Your task to perform on an android device: Add "logitech g pro" to the cart on ebay.com, then select checkout. Image 0: 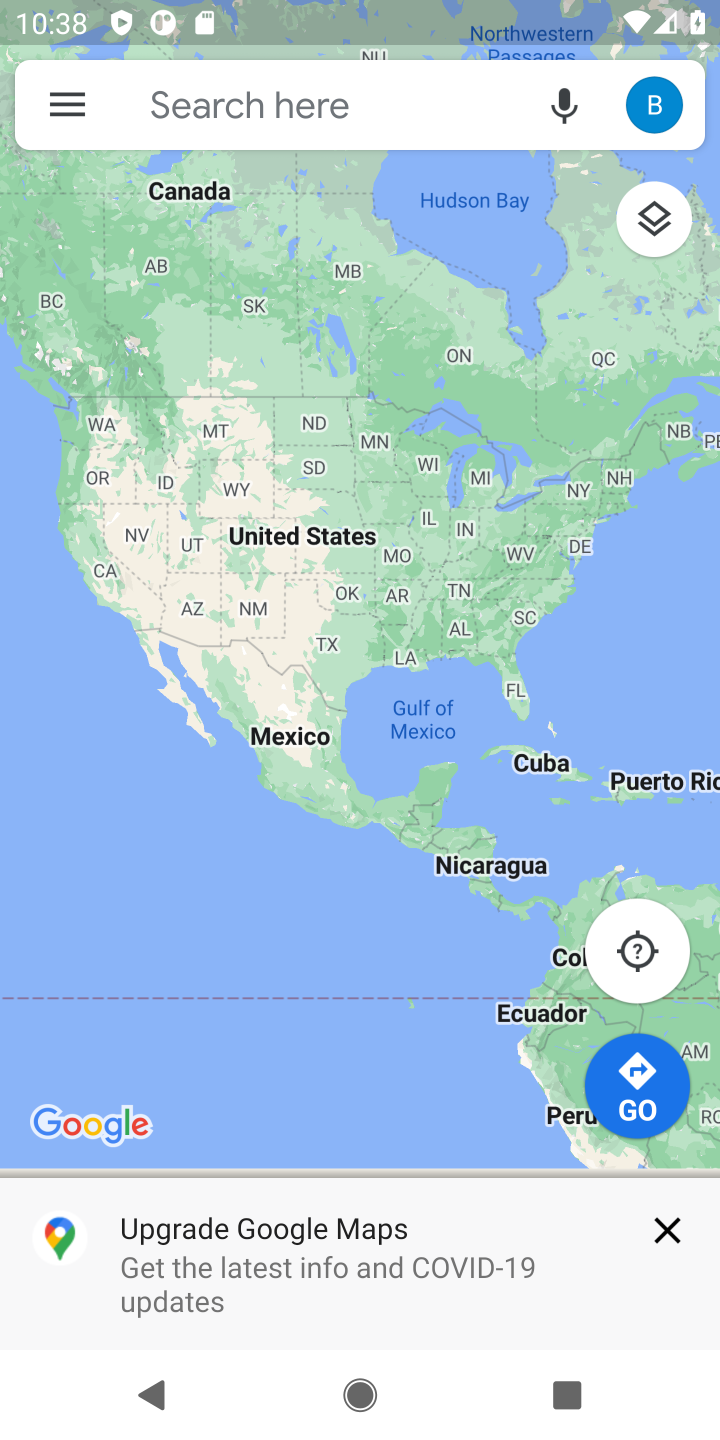
Step 0: press home button
Your task to perform on an android device: Add "logitech g pro" to the cart on ebay.com, then select checkout. Image 1: 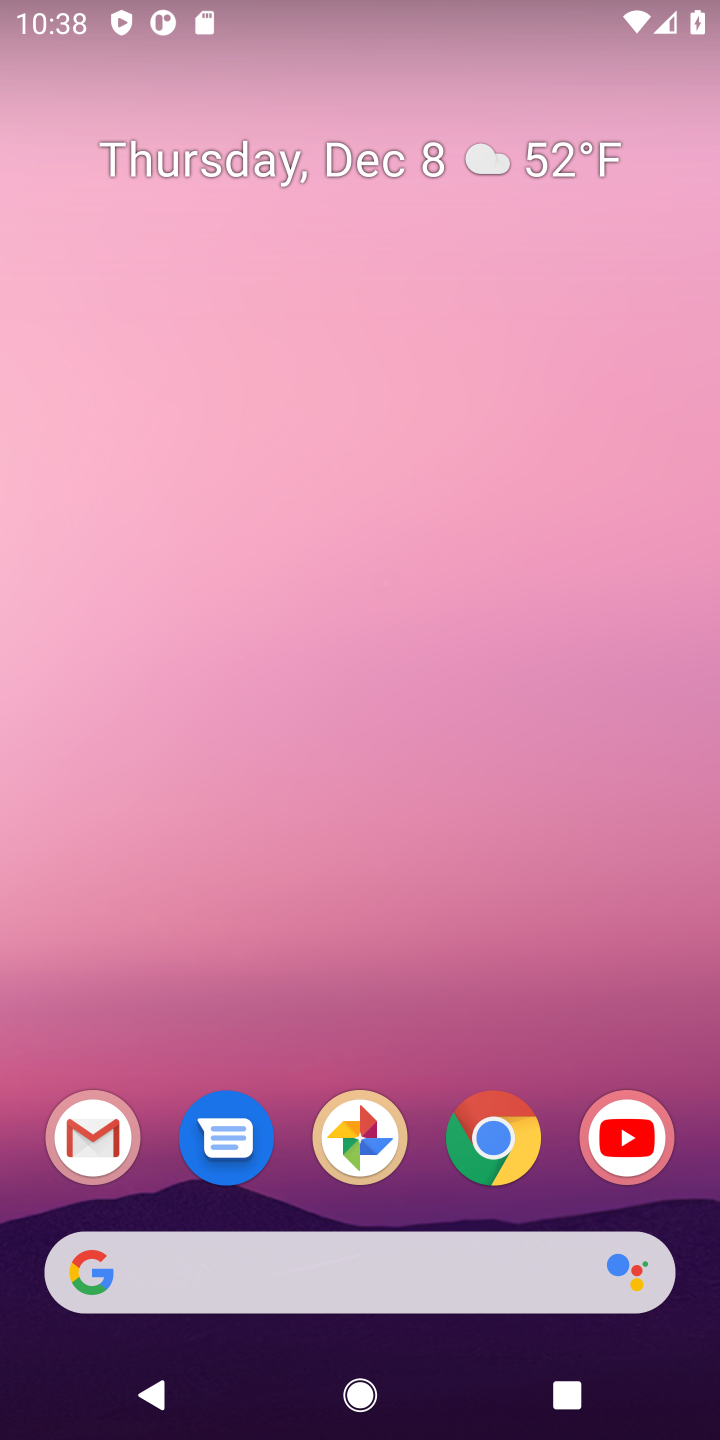
Step 1: click (503, 1136)
Your task to perform on an android device: Add "logitech g pro" to the cart on ebay.com, then select checkout. Image 2: 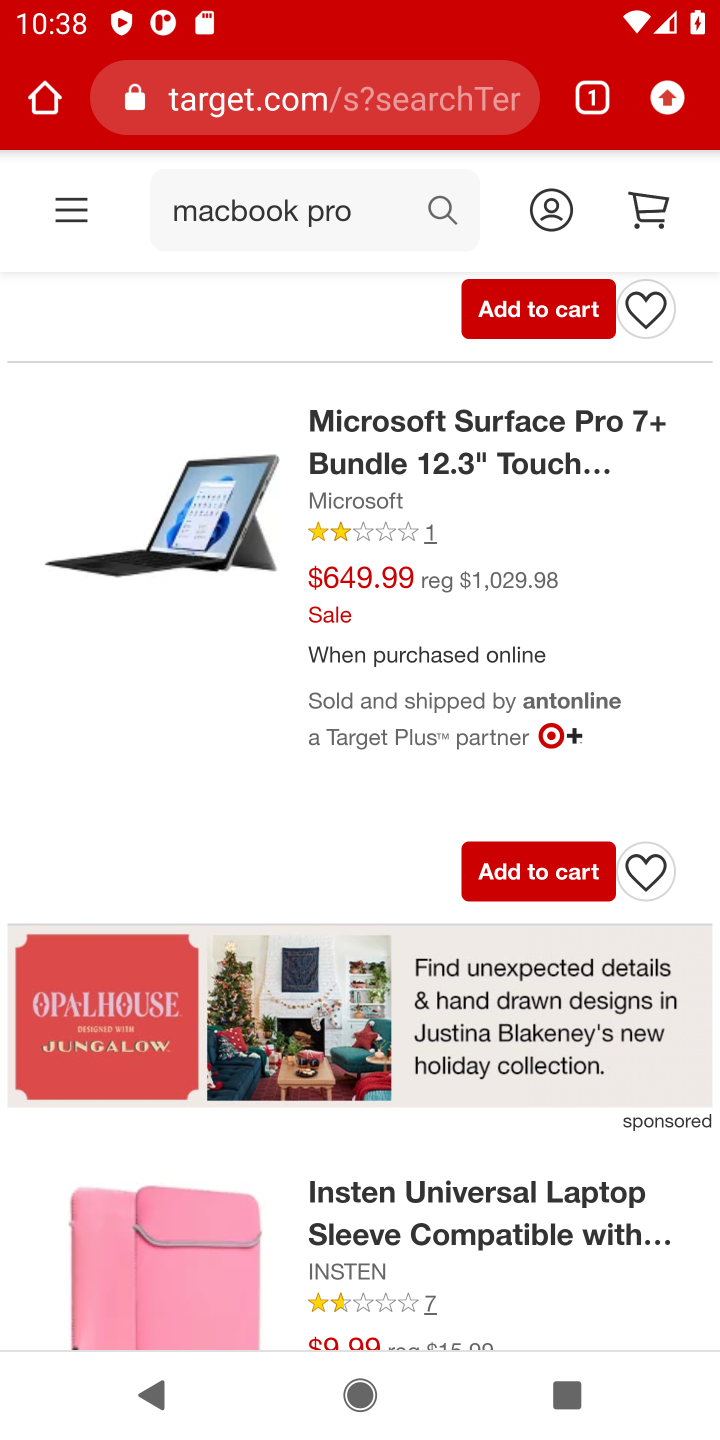
Step 2: click (435, 100)
Your task to perform on an android device: Add "logitech g pro" to the cart on ebay.com, then select checkout. Image 3: 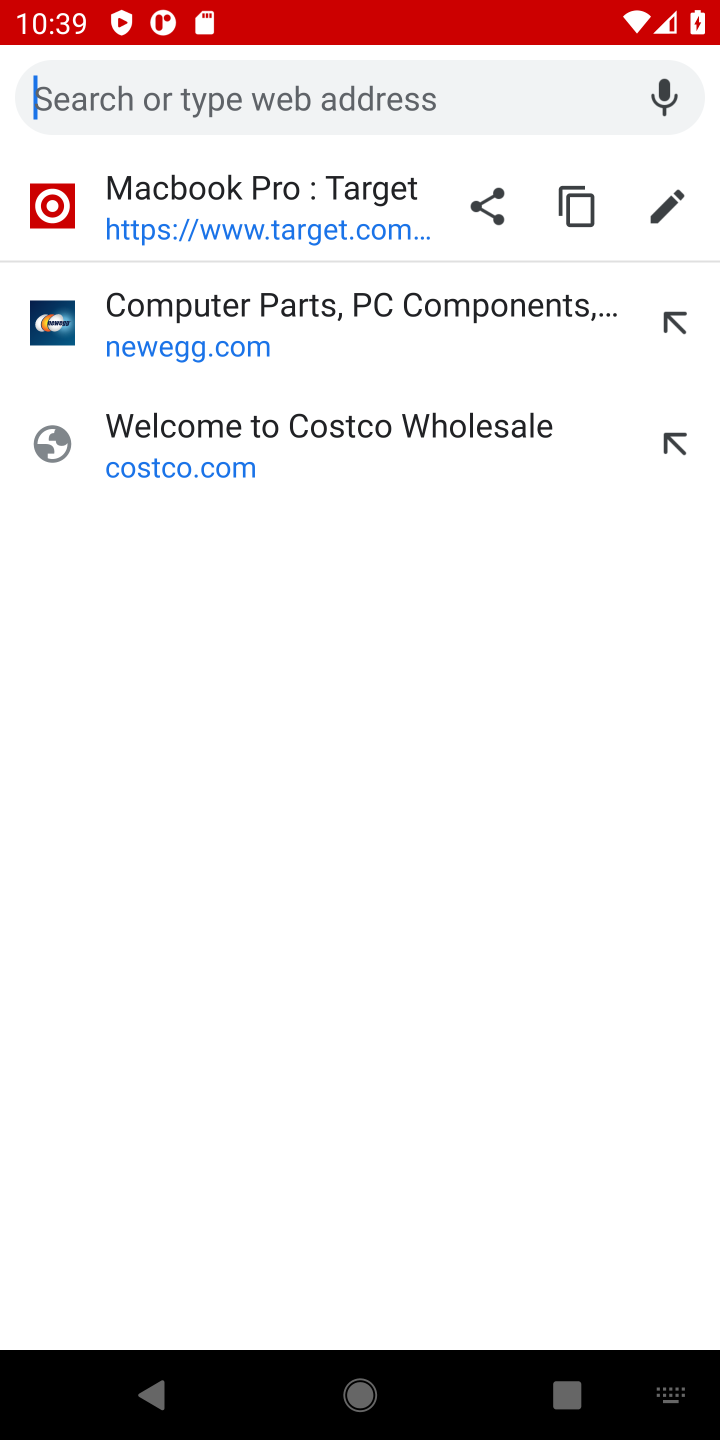
Step 3: click (343, 101)
Your task to perform on an android device: Add "logitech g pro" to the cart on ebay.com, then select checkout. Image 4: 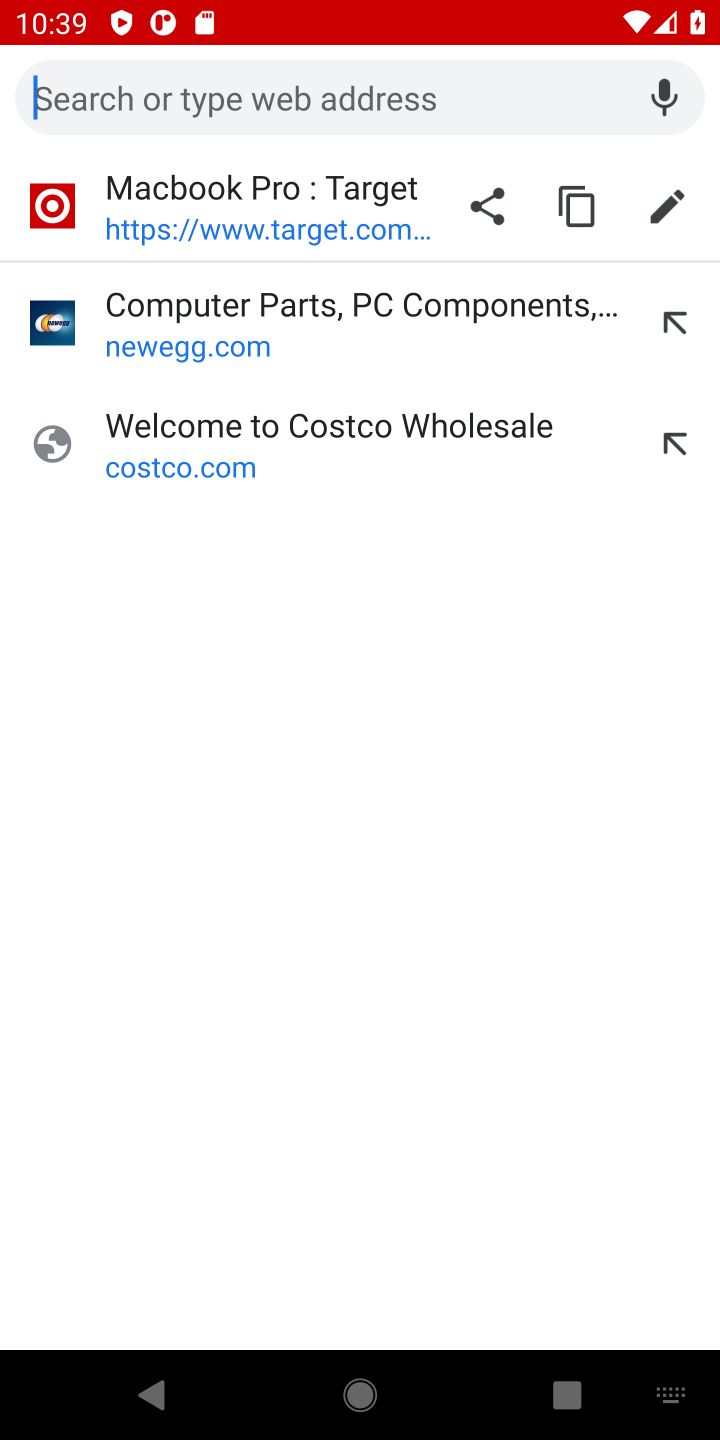
Step 4: type "ebay.com"
Your task to perform on an android device: Add "logitech g pro" to the cart on ebay.com, then select checkout. Image 5: 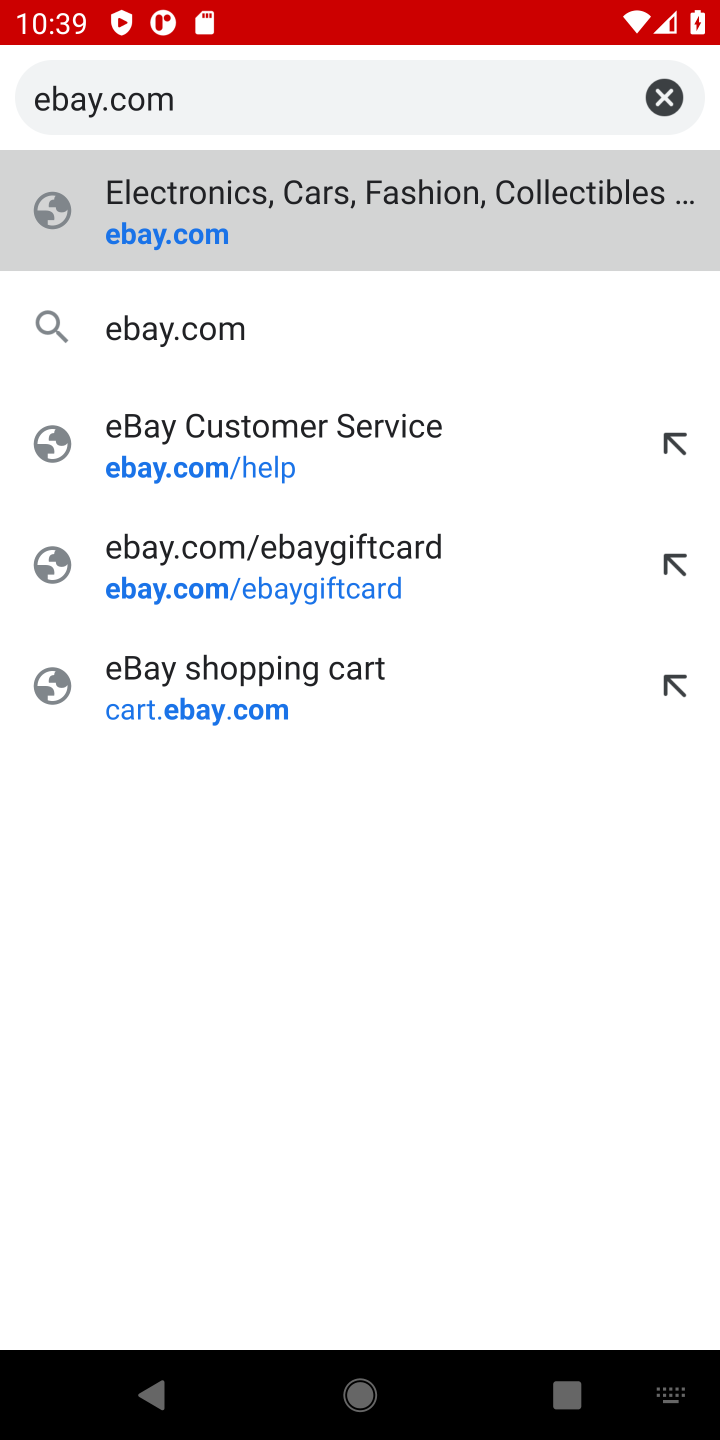
Step 5: click (161, 324)
Your task to perform on an android device: Add "logitech g pro" to the cart on ebay.com, then select checkout. Image 6: 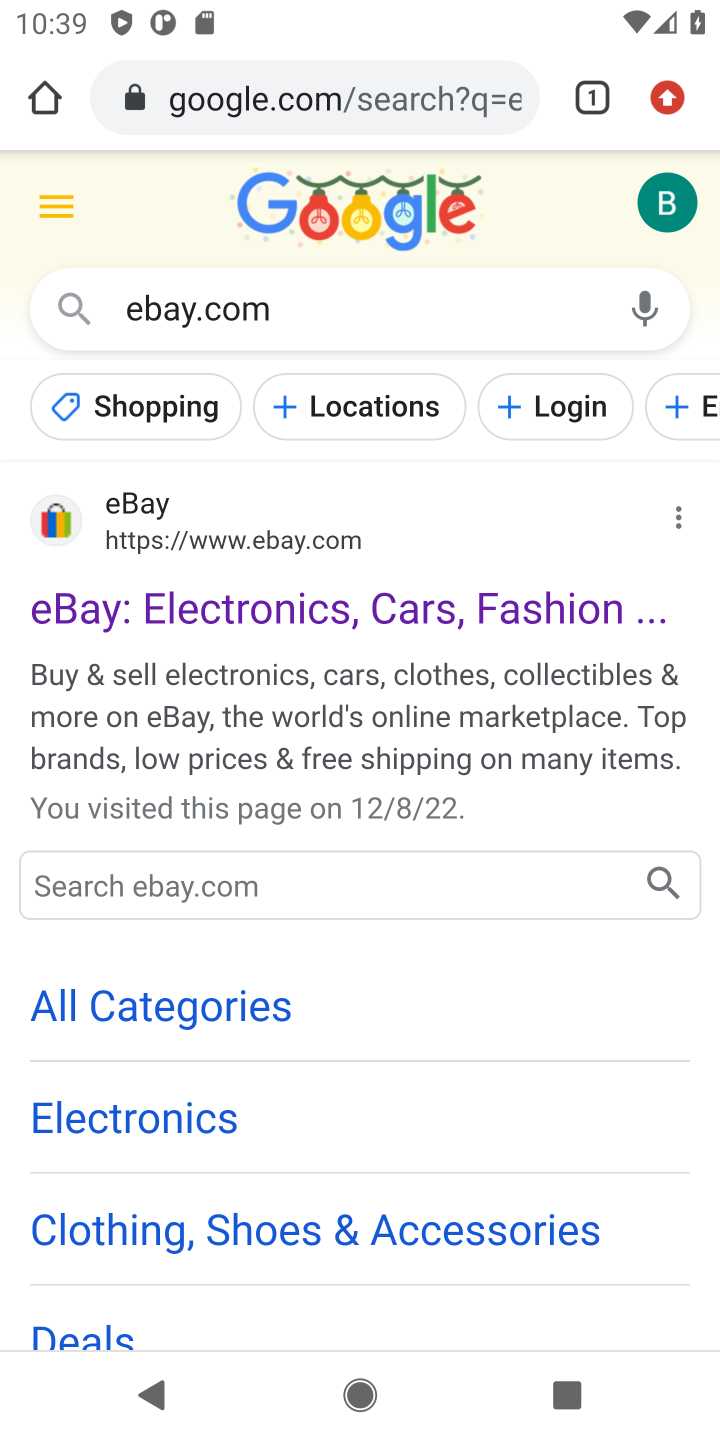
Step 6: click (232, 527)
Your task to perform on an android device: Add "logitech g pro" to the cart on ebay.com, then select checkout. Image 7: 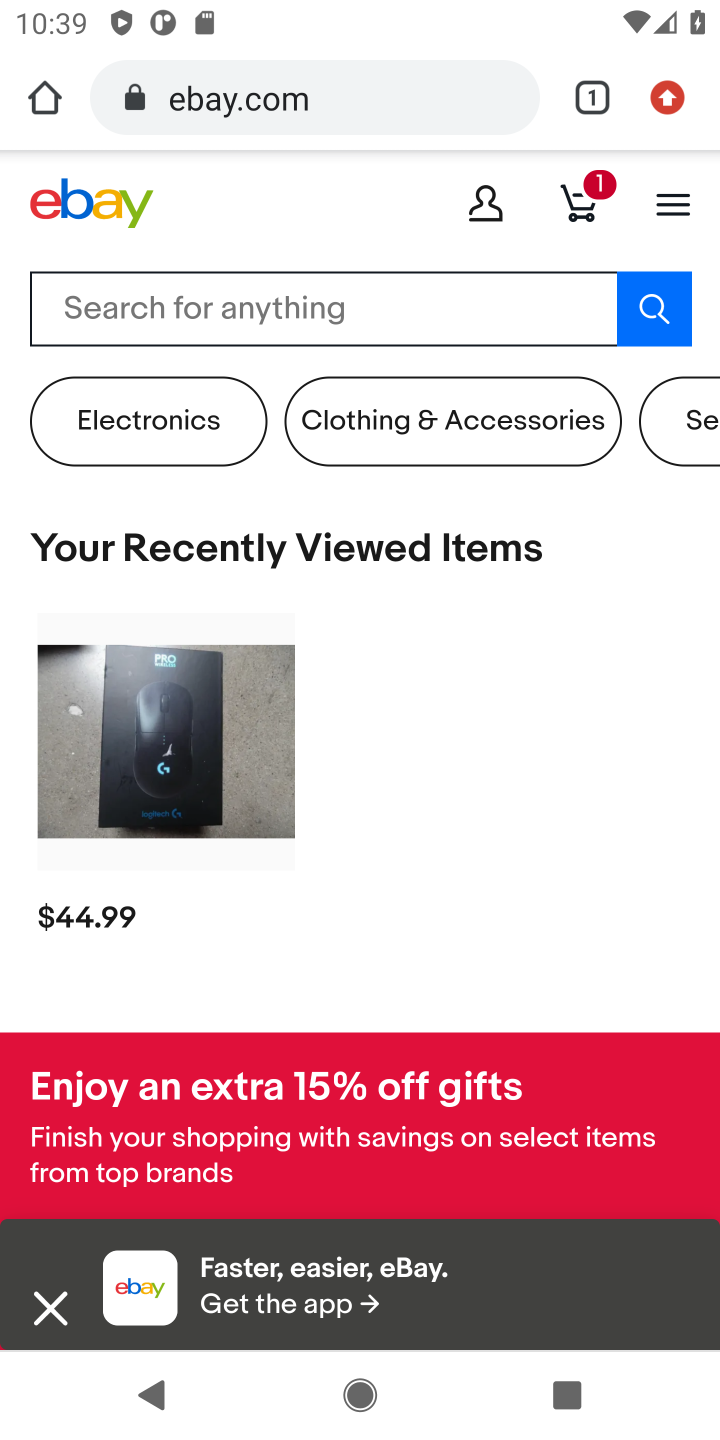
Step 7: click (563, 312)
Your task to perform on an android device: Add "logitech g pro" to the cart on ebay.com, then select checkout. Image 8: 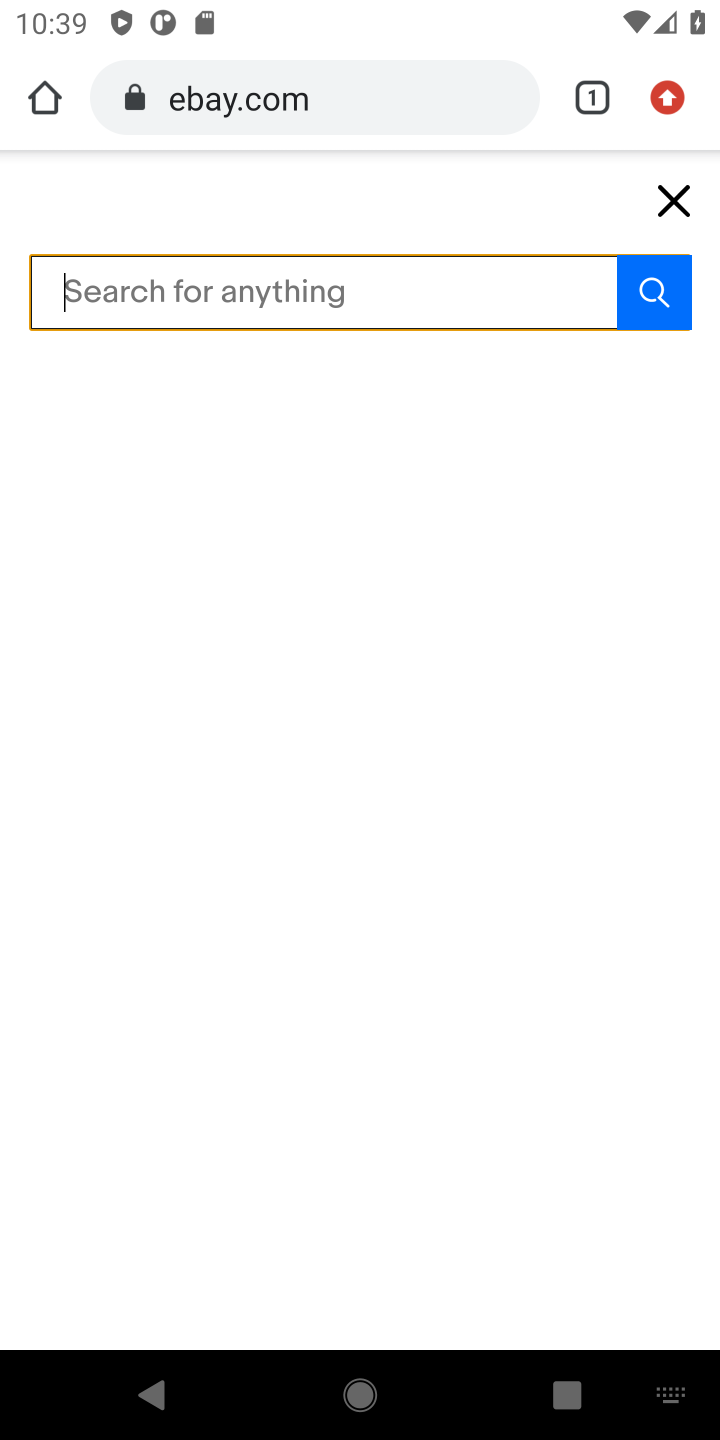
Step 8: type "logitech g pro"
Your task to perform on an android device: Add "logitech g pro" to the cart on ebay.com, then select checkout. Image 9: 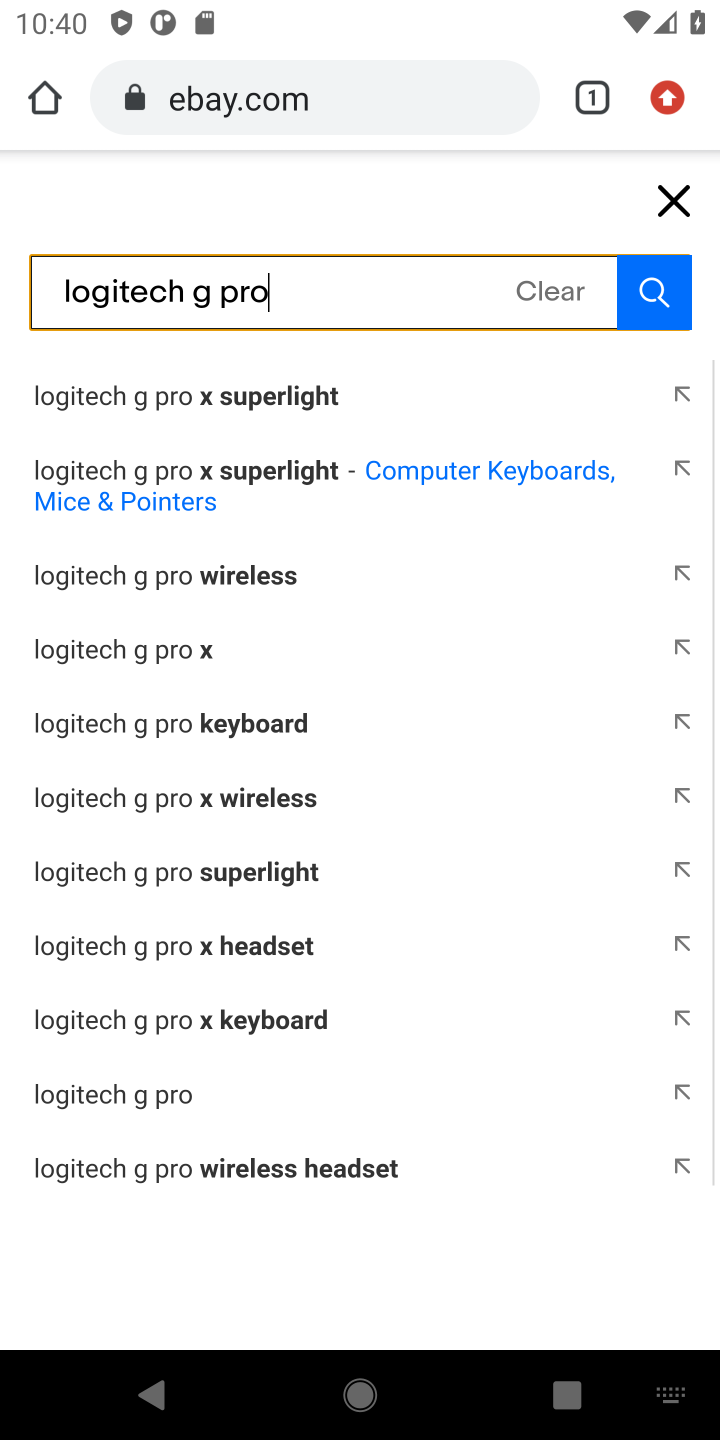
Step 9: press enter
Your task to perform on an android device: Add "logitech g pro" to the cart on ebay.com, then select checkout. Image 10: 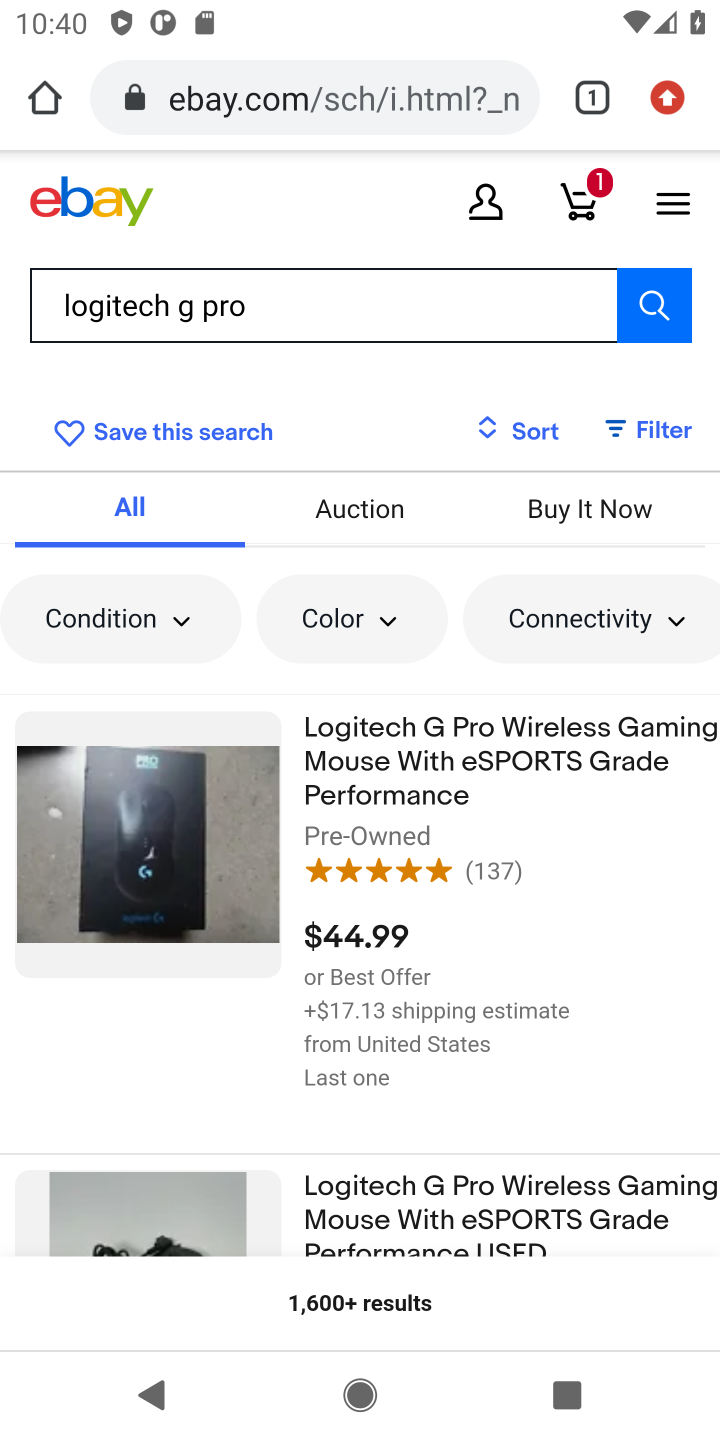
Step 10: click (153, 835)
Your task to perform on an android device: Add "logitech g pro" to the cart on ebay.com, then select checkout. Image 11: 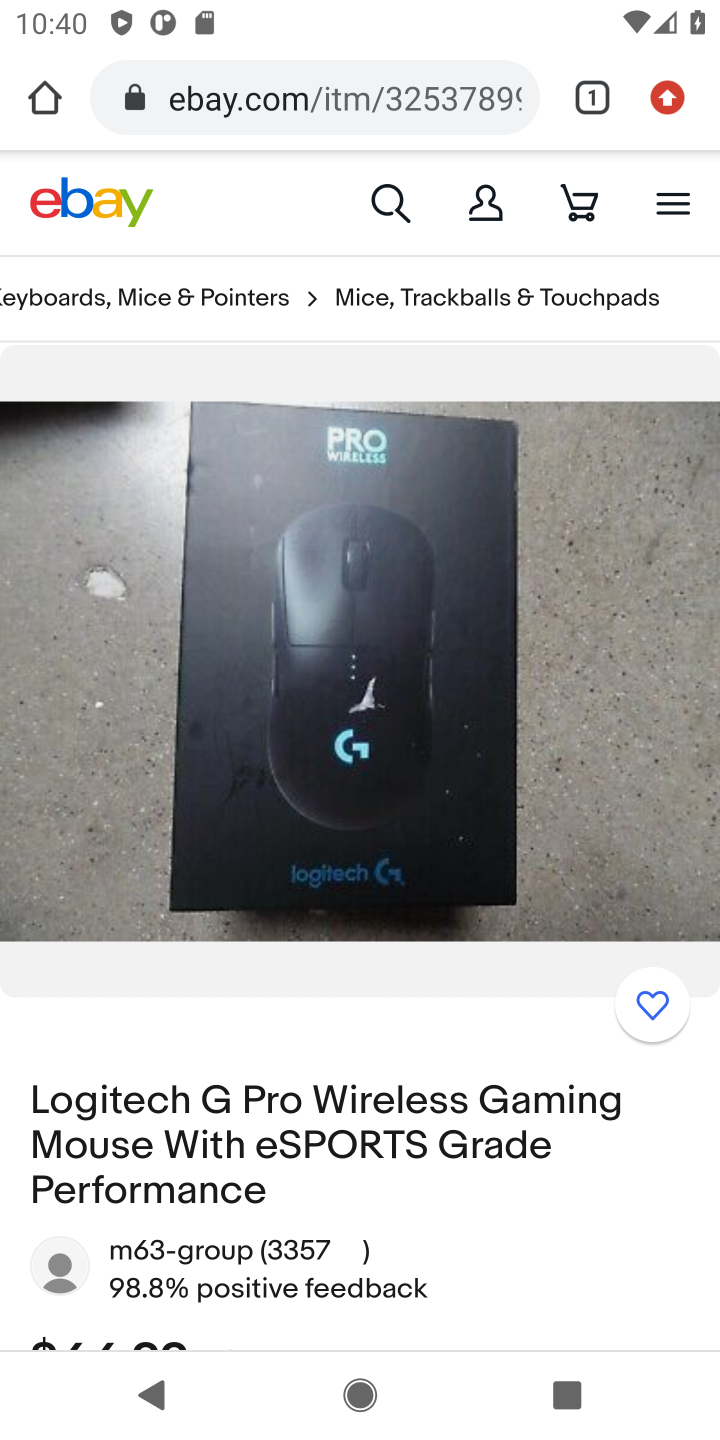
Step 11: drag from (541, 1118) to (554, 332)
Your task to perform on an android device: Add "logitech g pro" to the cart on ebay.com, then select checkout. Image 12: 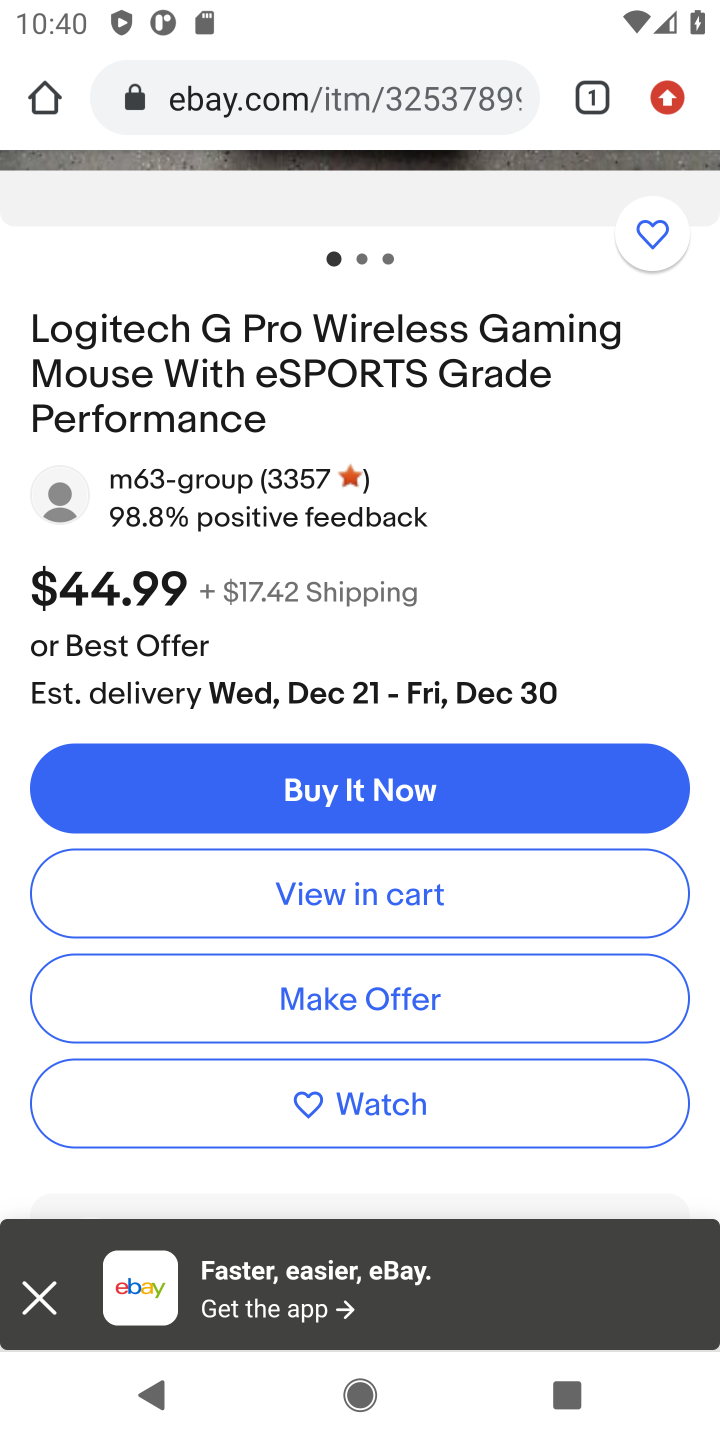
Step 12: click (368, 882)
Your task to perform on an android device: Add "logitech g pro" to the cart on ebay.com, then select checkout. Image 13: 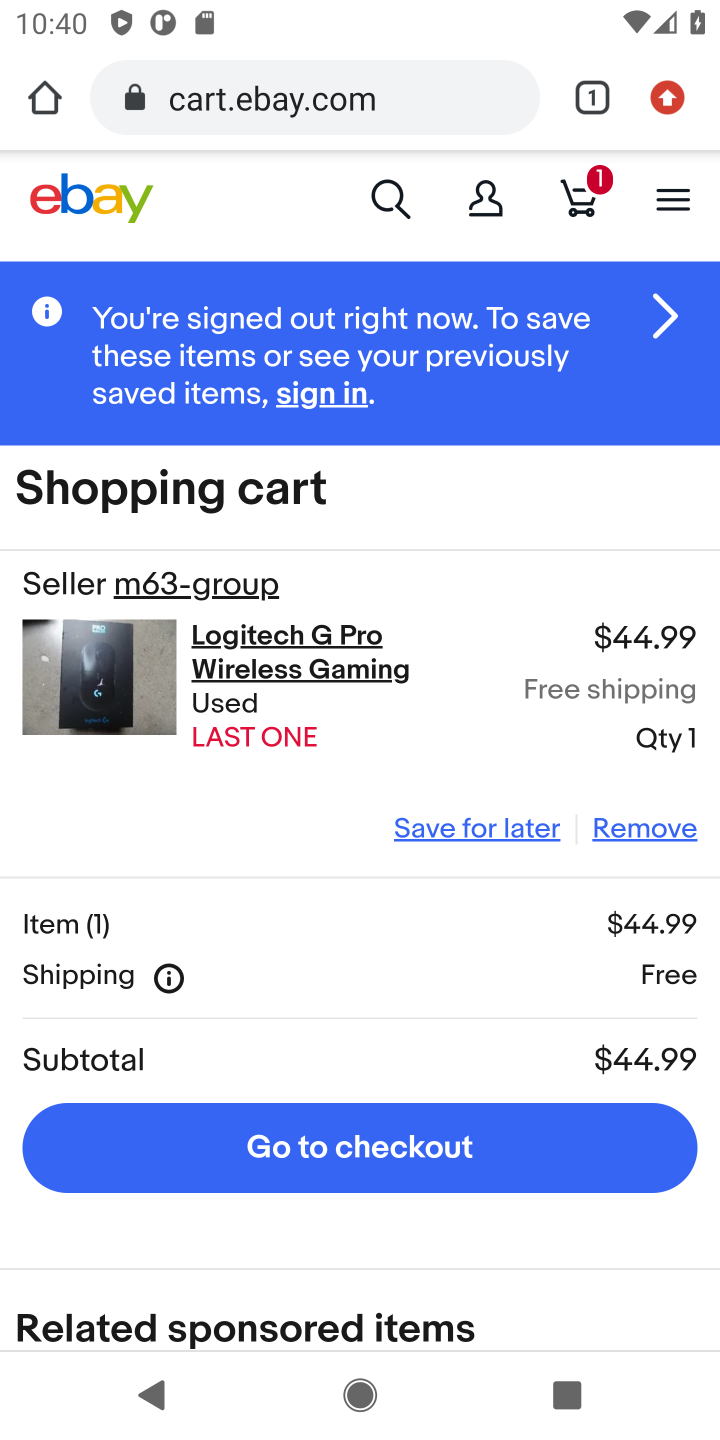
Step 13: click (359, 1138)
Your task to perform on an android device: Add "logitech g pro" to the cart on ebay.com, then select checkout. Image 14: 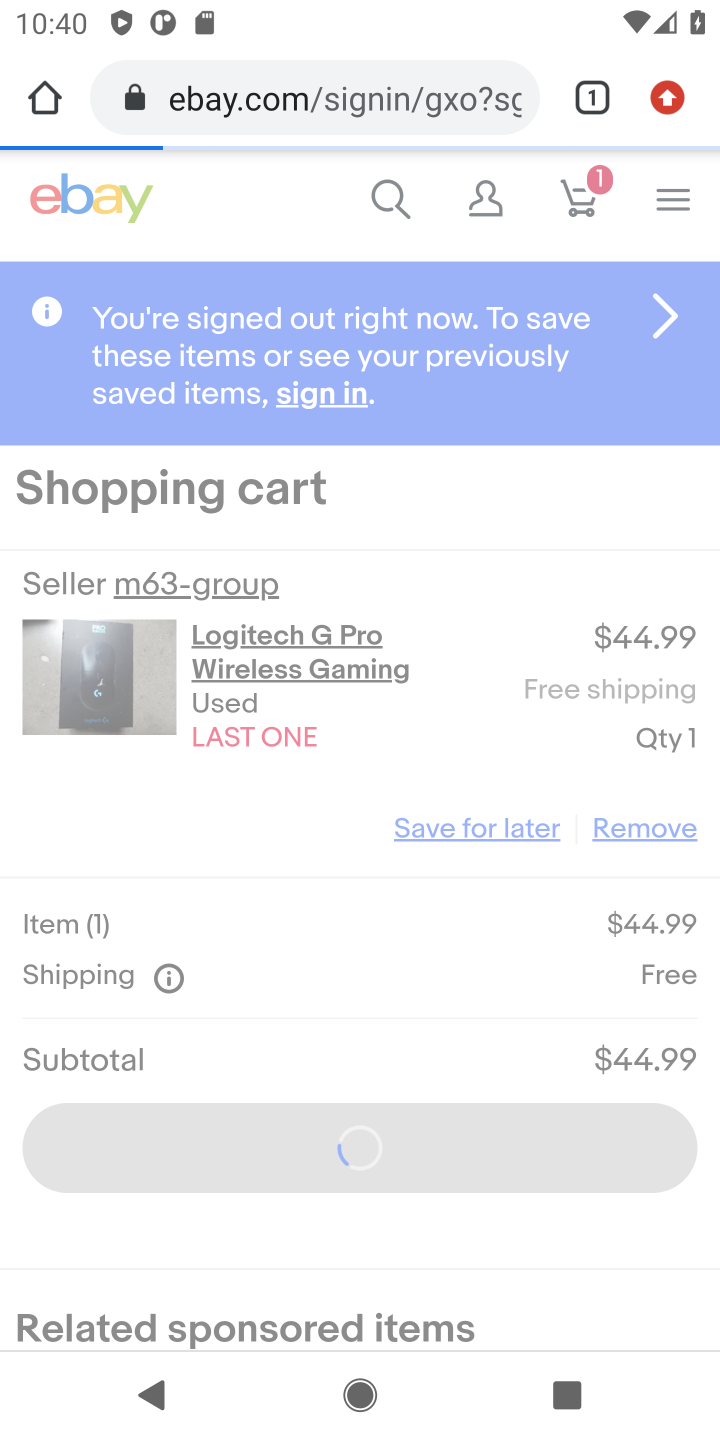
Step 14: task complete